Your task to perform on an android device: Turn off the flashlight Image 0: 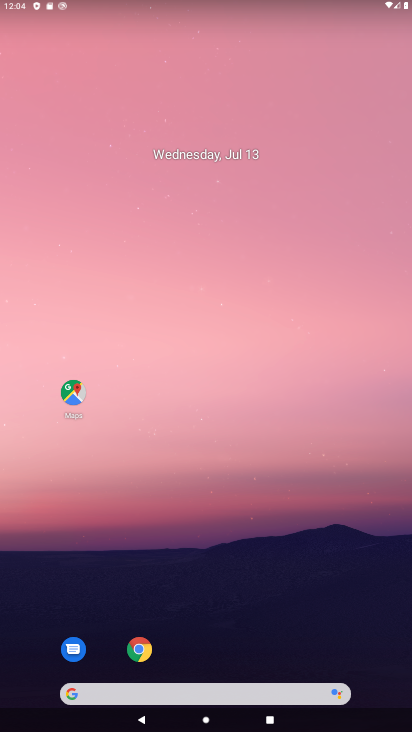
Step 0: drag from (316, 5) to (341, 509)
Your task to perform on an android device: Turn off the flashlight Image 1: 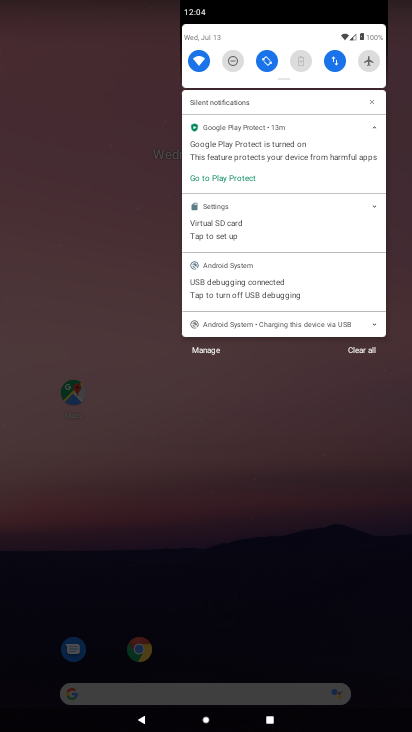
Step 1: drag from (300, 75) to (321, 390)
Your task to perform on an android device: Turn off the flashlight Image 2: 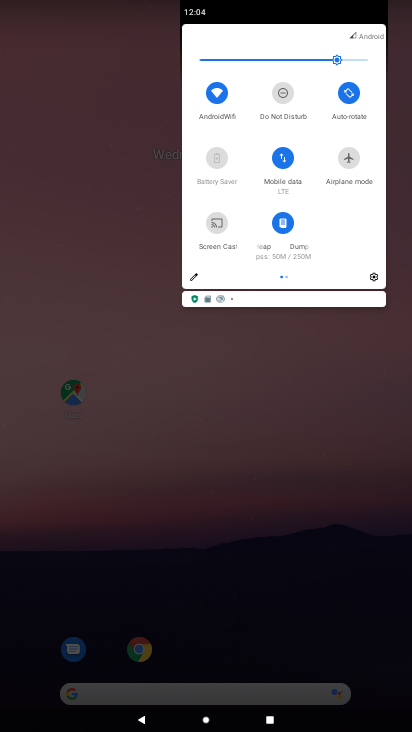
Step 2: click (194, 275)
Your task to perform on an android device: Turn off the flashlight Image 3: 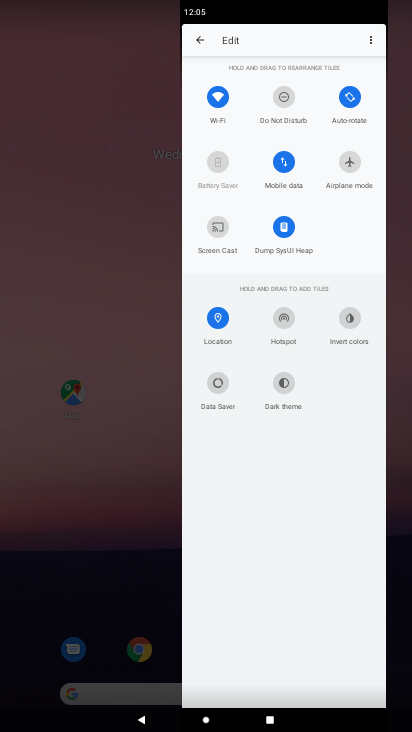
Step 3: task complete